Your task to perform on an android device: turn notification dots on Image 0: 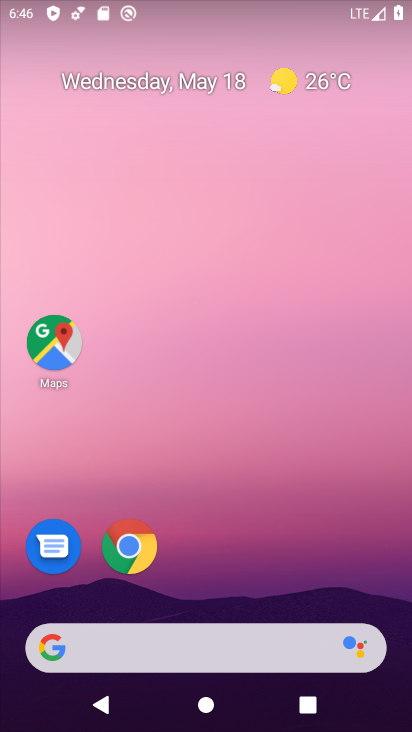
Step 0: press home button
Your task to perform on an android device: turn notification dots on Image 1: 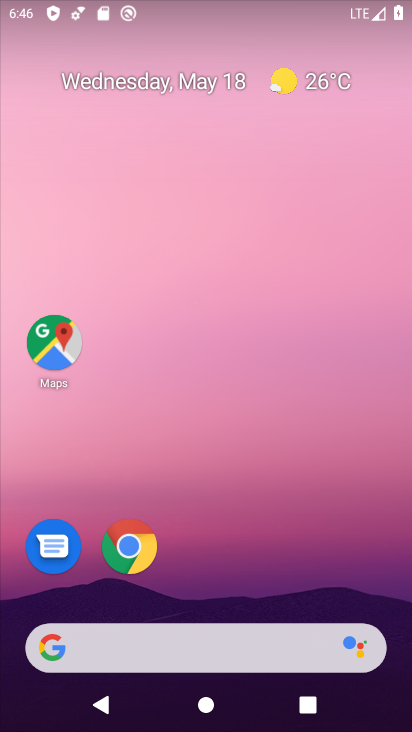
Step 1: drag from (378, 591) to (261, 62)
Your task to perform on an android device: turn notification dots on Image 2: 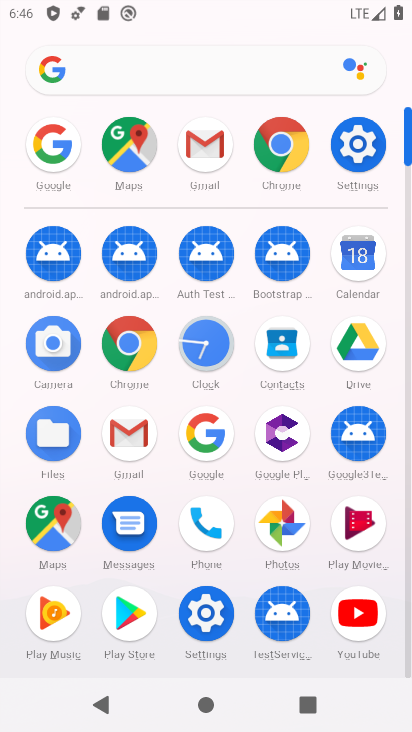
Step 2: click (354, 153)
Your task to perform on an android device: turn notification dots on Image 3: 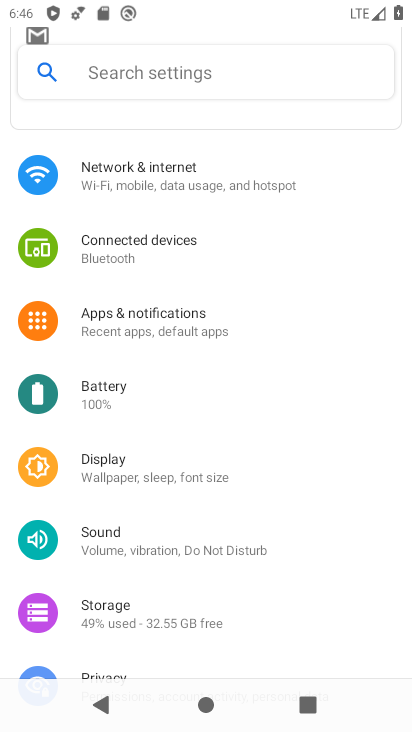
Step 3: click (188, 329)
Your task to perform on an android device: turn notification dots on Image 4: 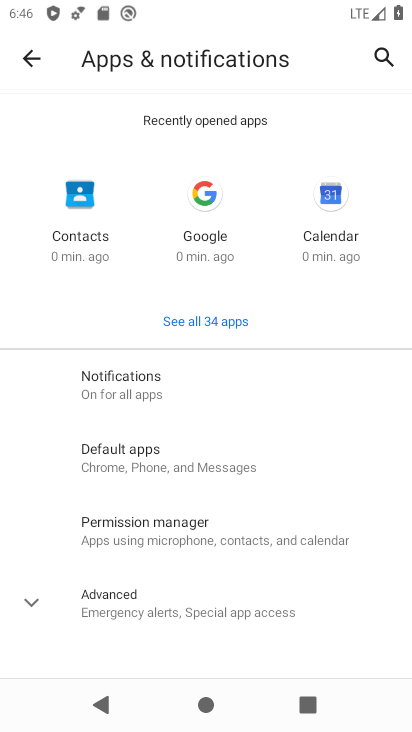
Step 4: click (196, 387)
Your task to perform on an android device: turn notification dots on Image 5: 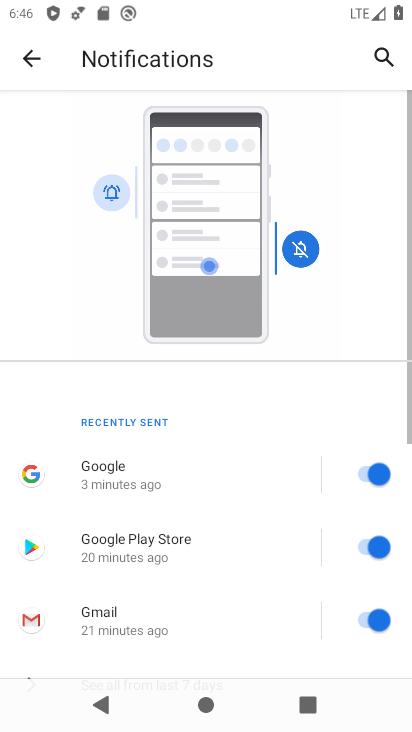
Step 5: drag from (236, 651) to (344, 68)
Your task to perform on an android device: turn notification dots on Image 6: 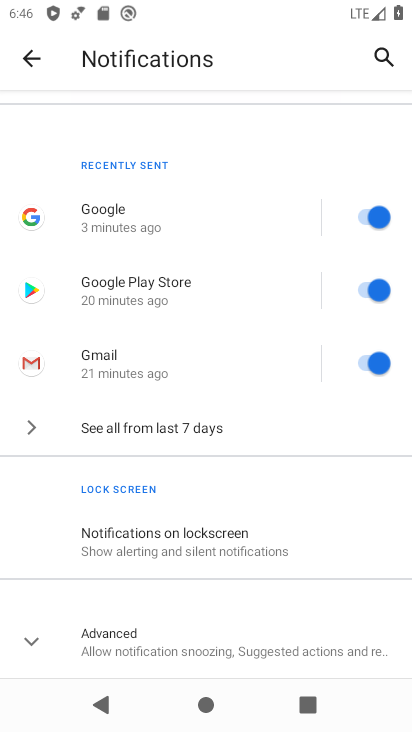
Step 6: click (76, 632)
Your task to perform on an android device: turn notification dots on Image 7: 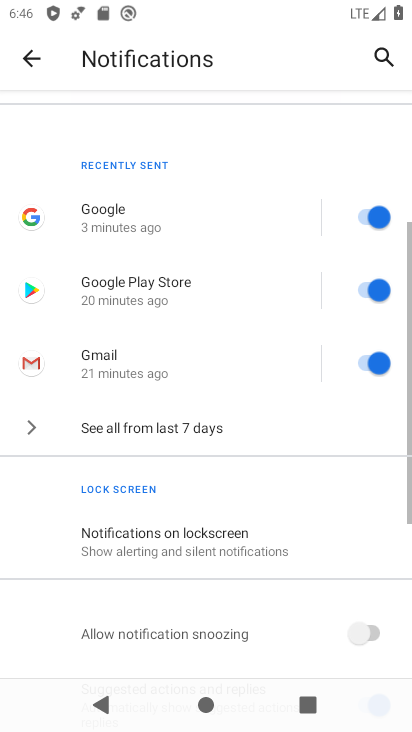
Step 7: drag from (138, 633) to (220, 185)
Your task to perform on an android device: turn notification dots on Image 8: 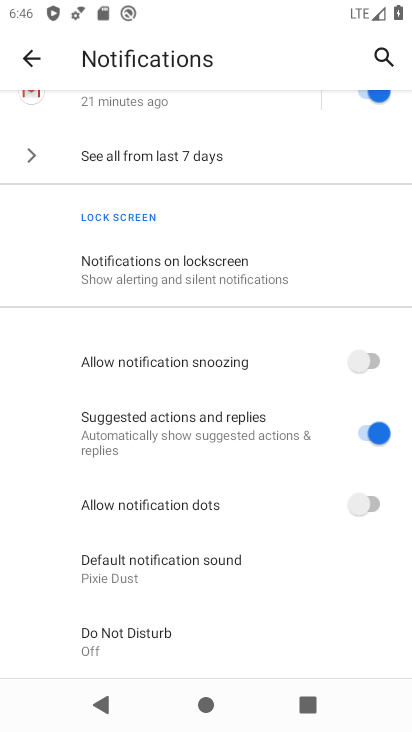
Step 8: click (273, 515)
Your task to perform on an android device: turn notification dots on Image 9: 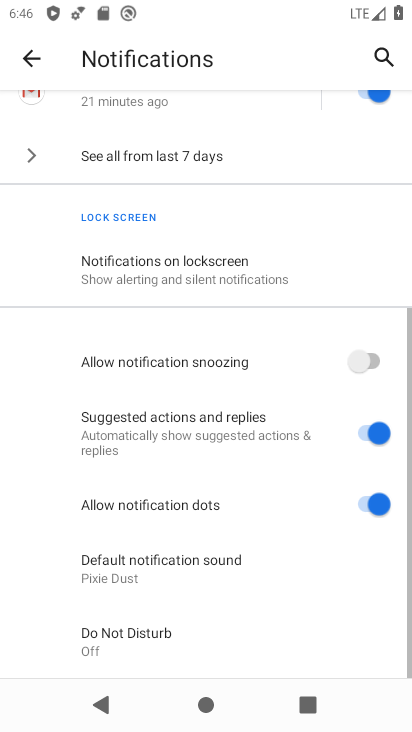
Step 9: task complete